Your task to perform on an android device: Open ESPN.com Image 0: 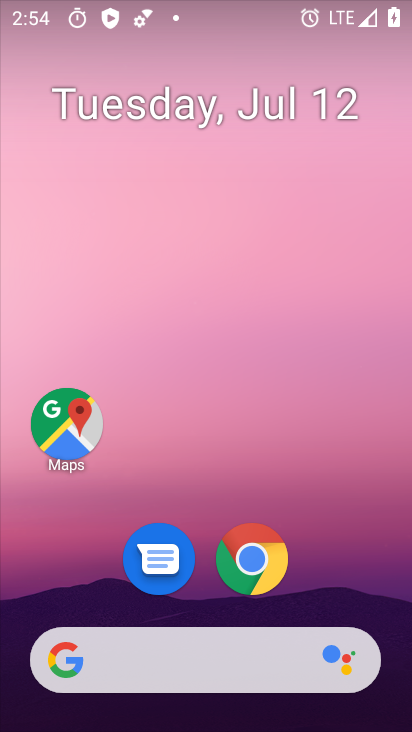
Step 0: drag from (363, 610) to (347, 204)
Your task to perform on an android device: Open ESPN.com Image 1: 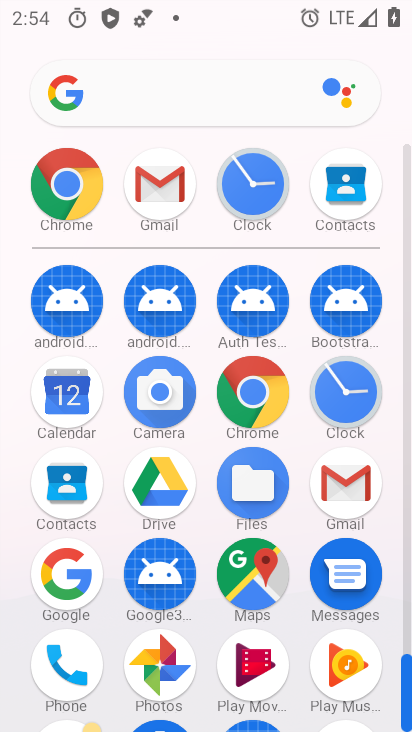
Step 1: click (268, 393)
Your task to perform on an android device: Open ESPN.com Image 2: 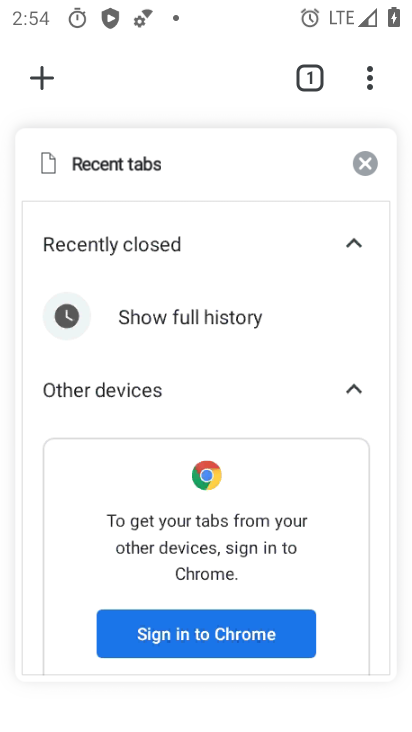
Step 2: press back button
Your task to perform on an android device: Open ESPN.com Image 3: 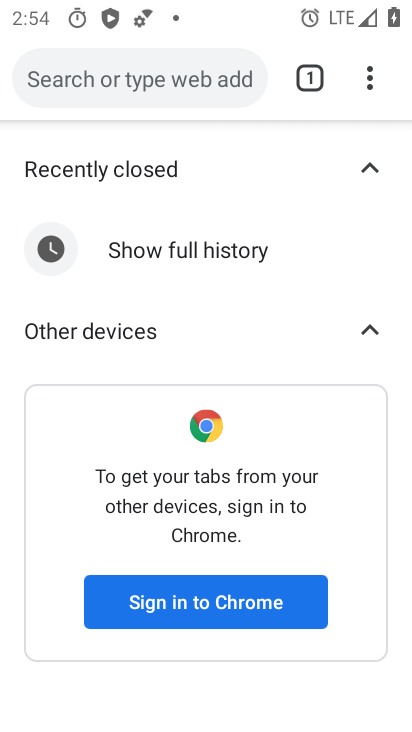
Step 3: click (177, 82)
Your task to perform on an android device: Open ESPN.com Image 4: 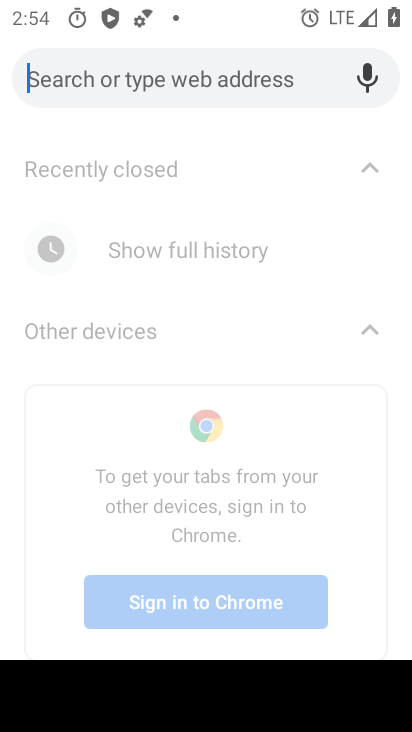
Step 4: type "espn.com"
Your task to perform on an android device: Open ESPN.com Image 5: 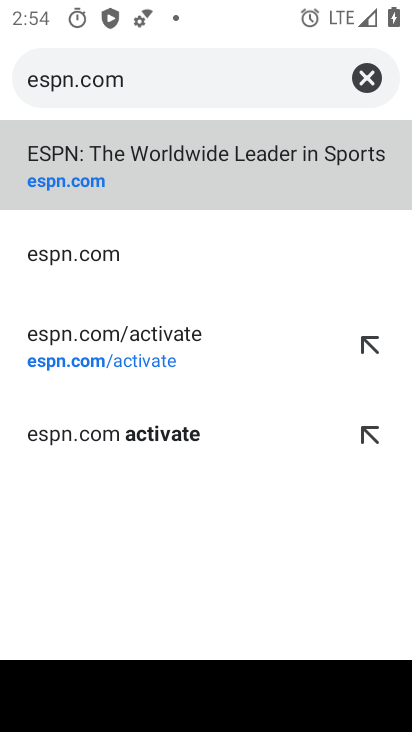
Step 5: click (263, 185)
Your task to perform on an android device: Open ESPN.com Image 6: 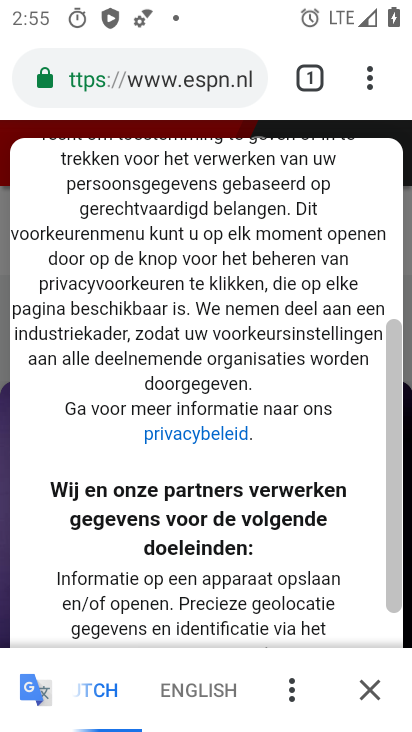
Step 6: task complete